Your task to perform on an android device: Search for dell alienware on amazon.com, select the first entry, and add it to the cart. Image 0: 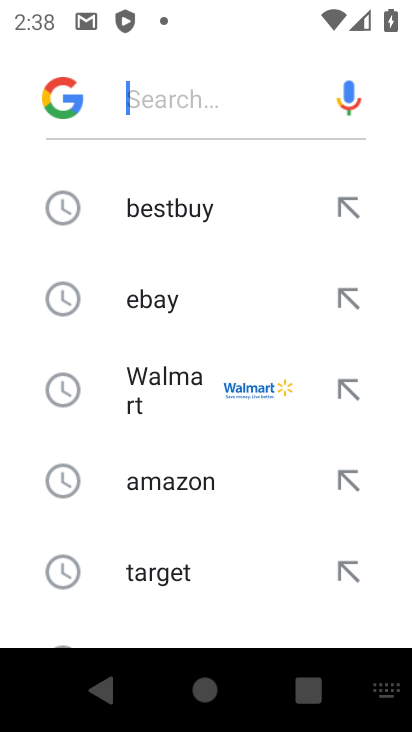
Step 0: click (181, 482)
Your task to perform on an android device: Search for dell alienware on amazon.com, select the first entry, and add it to the cart. Image 1: 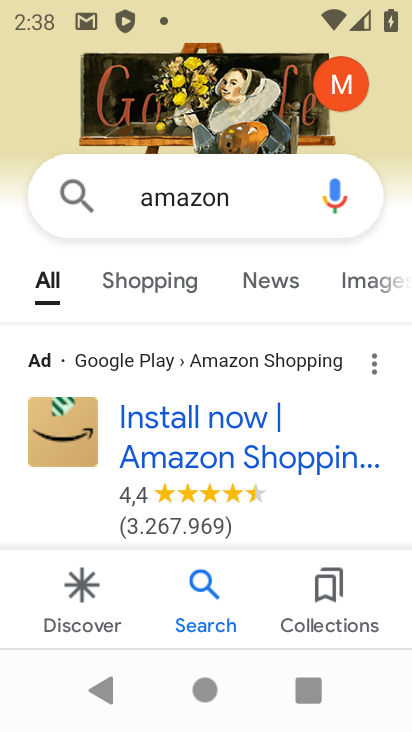
Step 1: click (174, 417)
Your task to perform on an android device: Search for dell alienware on amazon.com, select the first entry, and add it to the cart. Image 2: 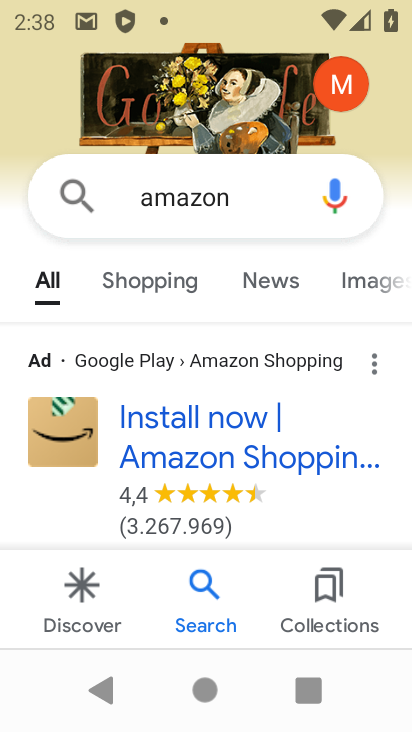
Step 2: task complete